Your task to perform on an android device: open a bookmark in the chrome app Image 0: 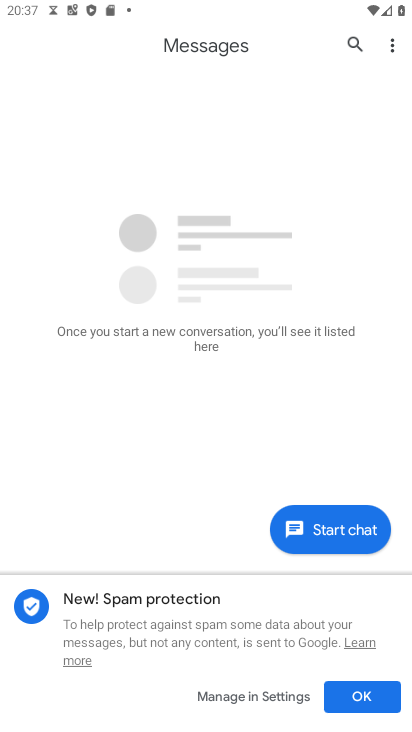
Step 0: press home button
Your task to perform on an android device: open a bookmark in the chrome app Image 1: 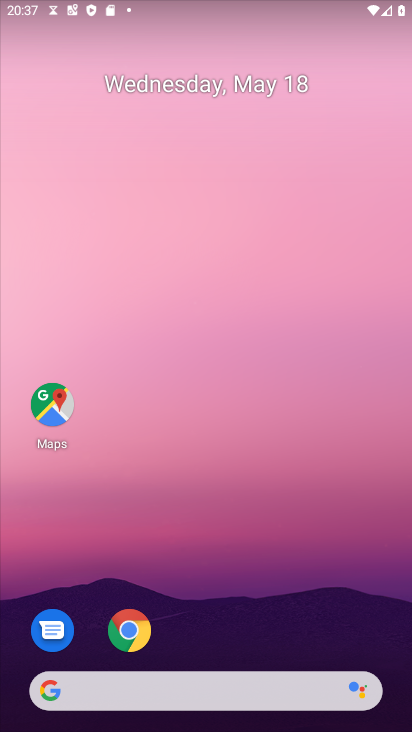
Step 1: click (132, 622)
Your task to perform on an android device: open a bookmark in the chrome app Image 2: 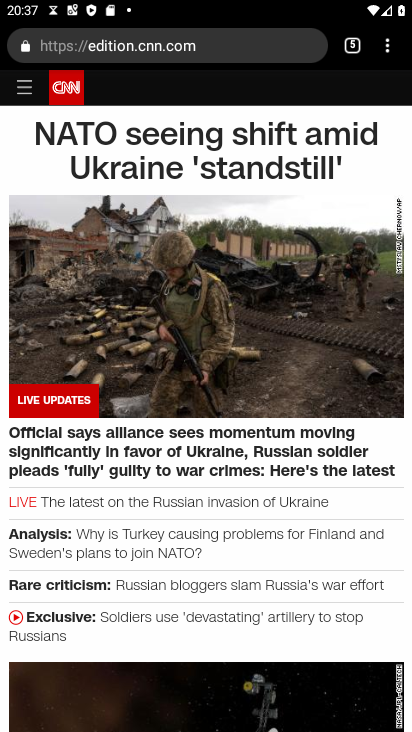
Step 2: task complete